Your task to perform on an android device: What's the weather going to be tomorrow? Image 0: 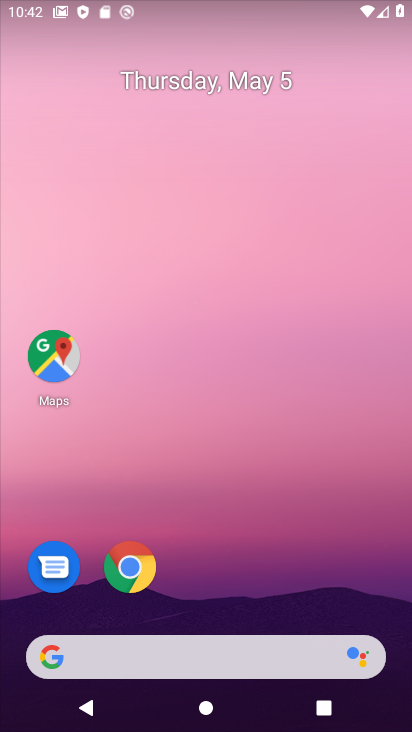
Step 0: drag from (187, 594) to (279, 71)
Your task to perform on an android device: What's the weather going to be tomorrow? Image 1: 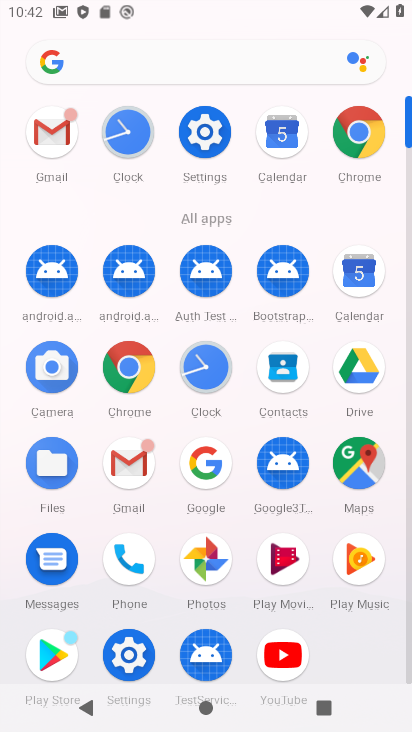
Step 1: press back button
Your task to perform on an android device: What's the weather going to be tomorrow? Image 2: 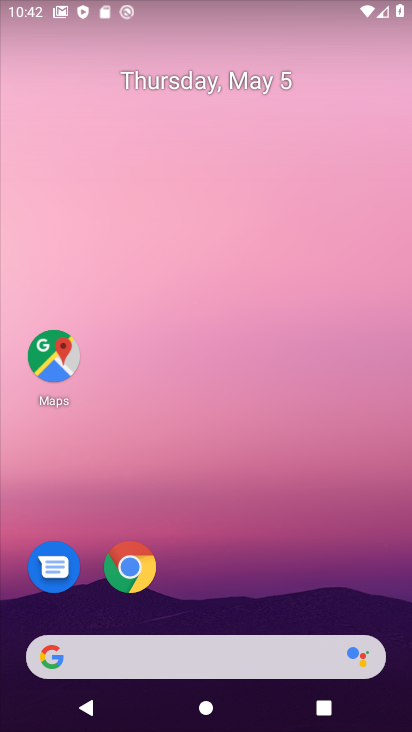
Step 2: click (156, 654)
Your task to perform on an android device: What's the weather going to be tomorrow? Image 3: 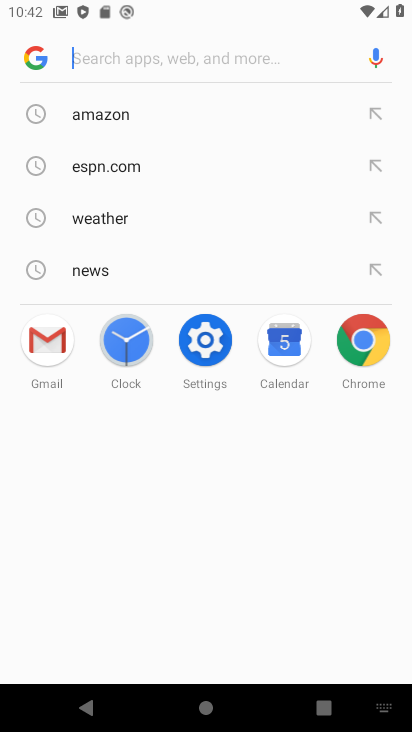
Step 3: click (102, 217)
Your task to perform on an android device: What's the weather going to be tomorrow? Image 4: 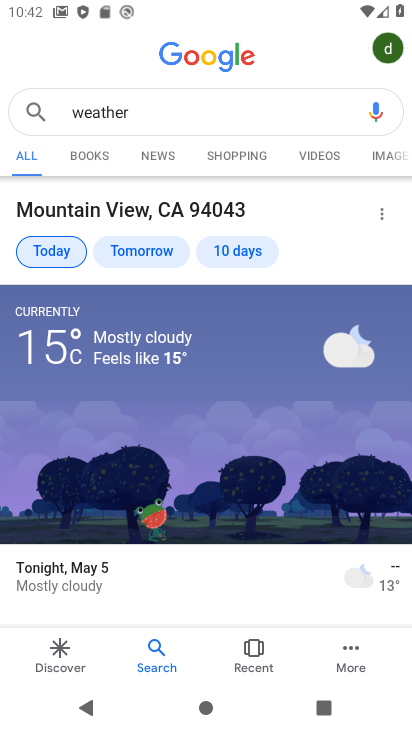
Step 4: drag from (193, 586) to (252, 238)
Your task to perform on an android device: What's the weather going to be tomorrow? Image 5: 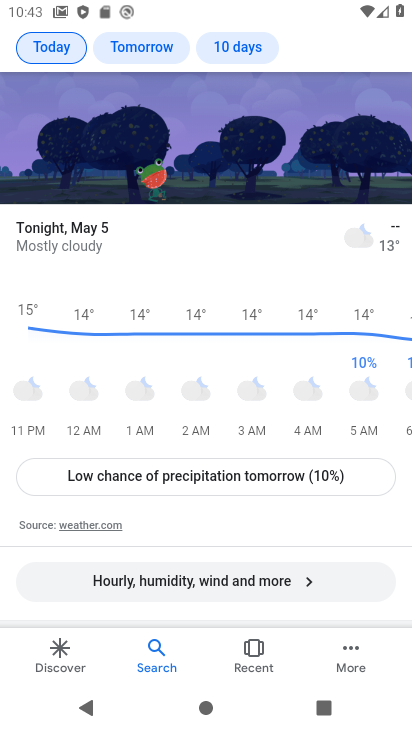
Step 5: click (118, 42)
Your task to perform on an android device: What's the weather going to be tomorrow? Image 6: 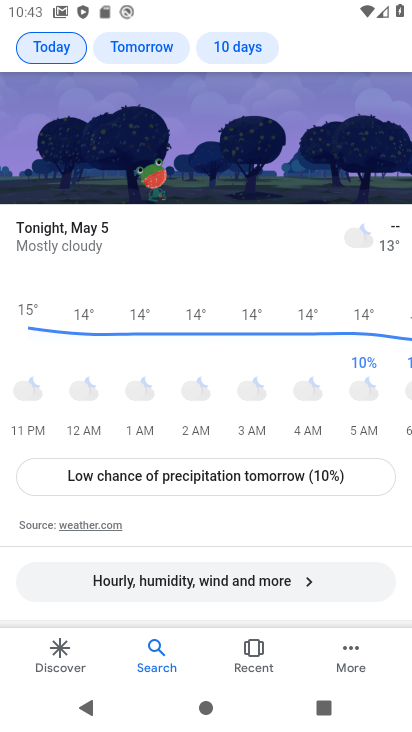
Step 6: click (134, 45)
Your task to perform on an android device: What's the weather going to be tomorrow? Image 7: 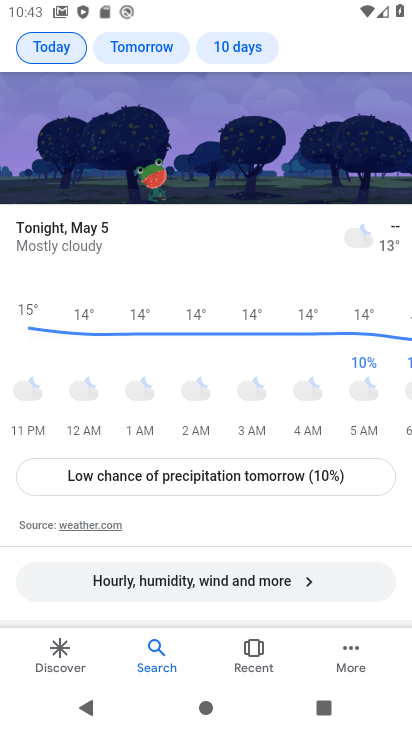
Step 7: click (140, 36)
Your task to perform on an android device: What's the weather going to be tomorrow? Image 8: 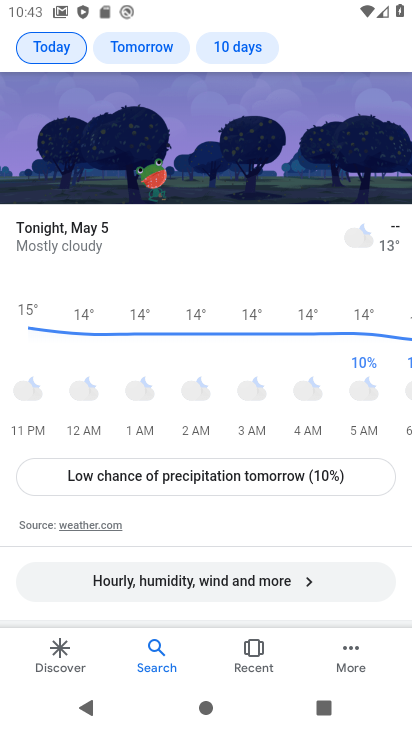
Step 8: click (133, 54)
Your task to perform on an android device: What's the weather going to be tomorrow? Image 9: 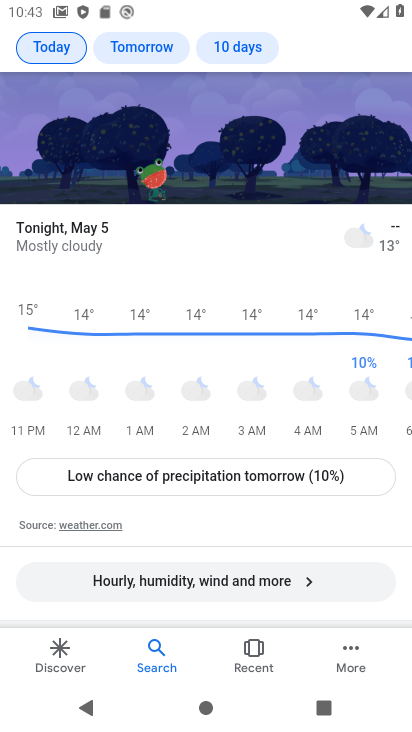
Step 9: task complete